Your task to perform on an android device: Open the calendar app, open the side menu, and click the "Day" option Image 0: 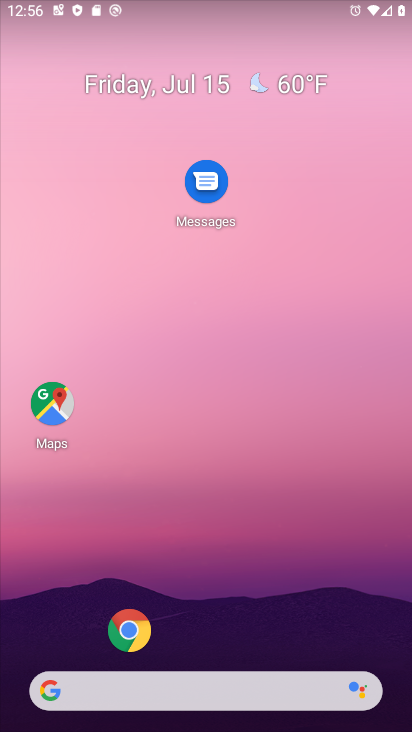
Step 0: drag from (57, 596) to (203, 251)
Your task to perform on an android device: Open the calendar app, open the side menu, and click the "Day" option Image 1: 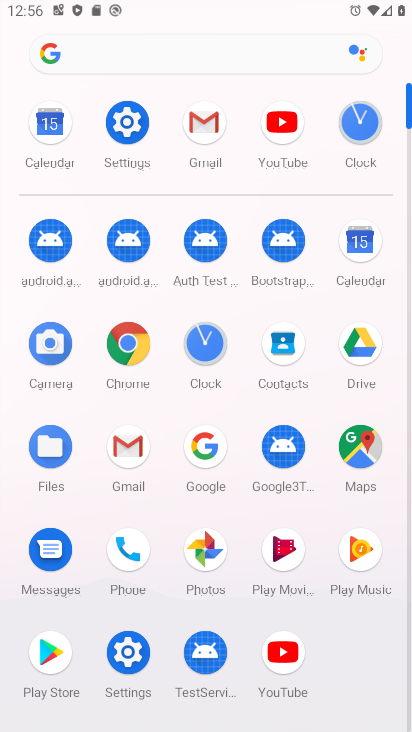
Step 1: click (372, 248)
Your task to perform on an android device: Open the calendar app, open the side menu, and click the "Day" option Image 2: 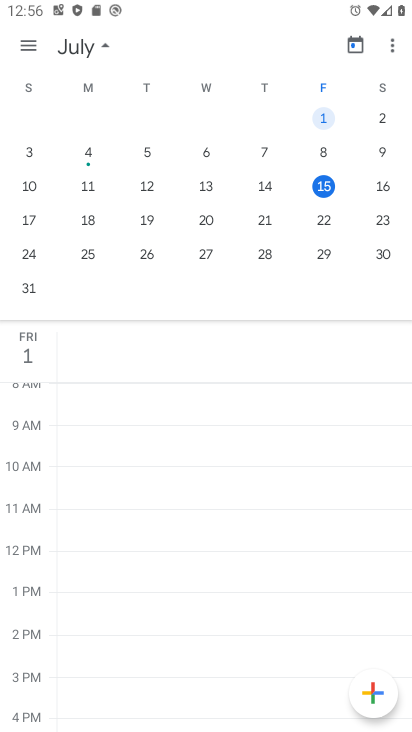
Step 2: click (20, 42)
Your task to perform on an android device: Open the calendar app, open the side menu, and click the "Day" option Image 3: 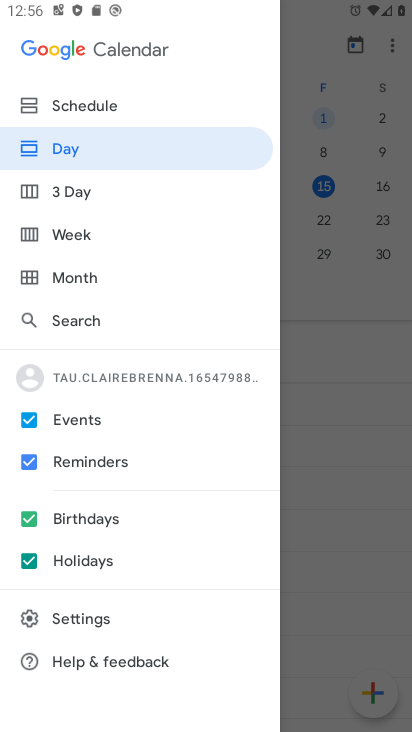
Step 3: click (94, 135)
Your task to perform on an android device: Open the calendar app, open the side menu, and click the "Day" option Image 4: 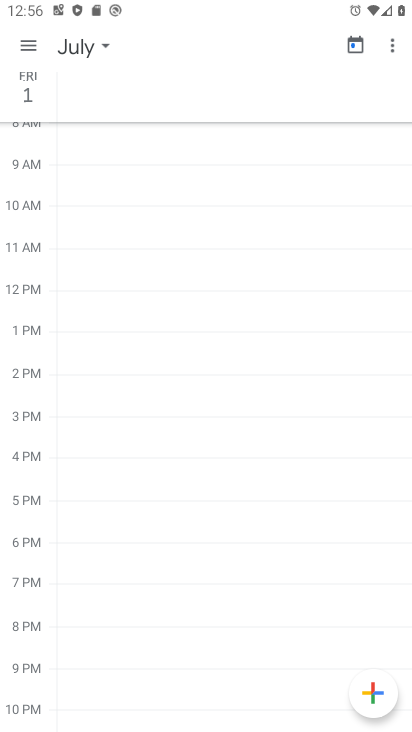
Step 4: task complete